Your task to perform on an android device: turn notification dots on Image 0: 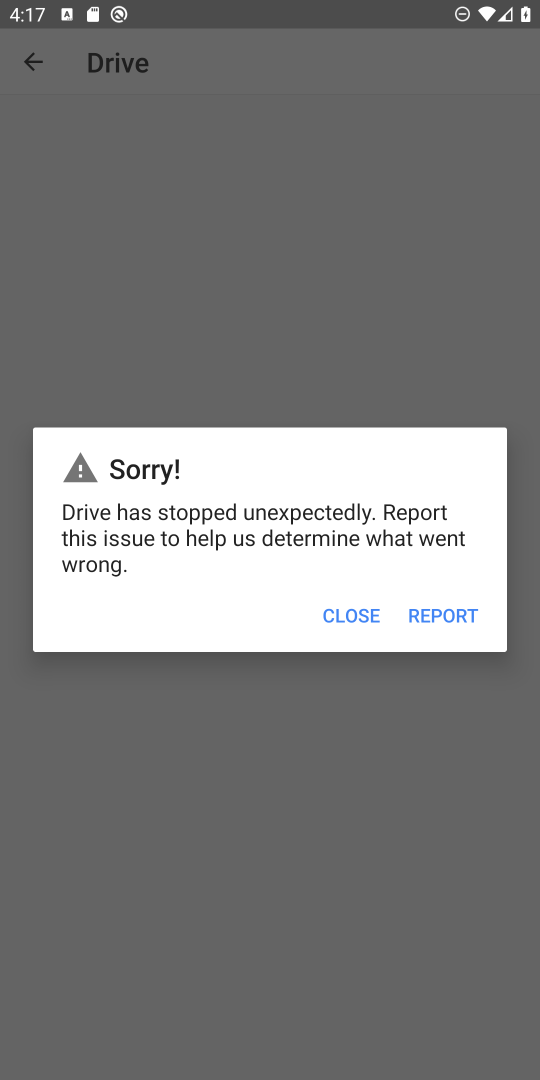
Step 0: press home button
Your task to perform on an android device: turn notification dots on Image 1: 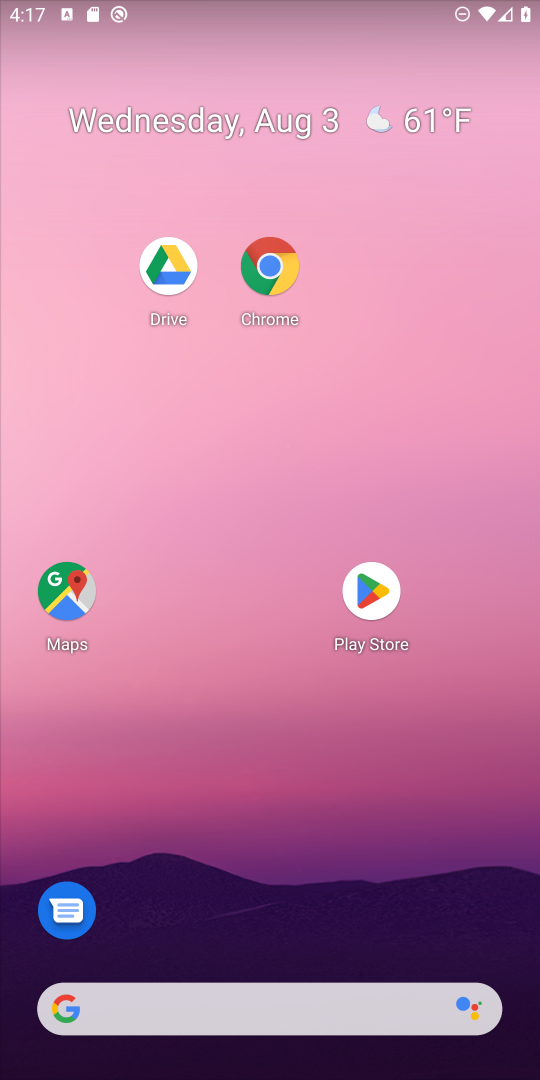
Step 1: drag from (298, 1005) to (466, 13)
Your task to perform on an android device: turn notification dots on Image 2: 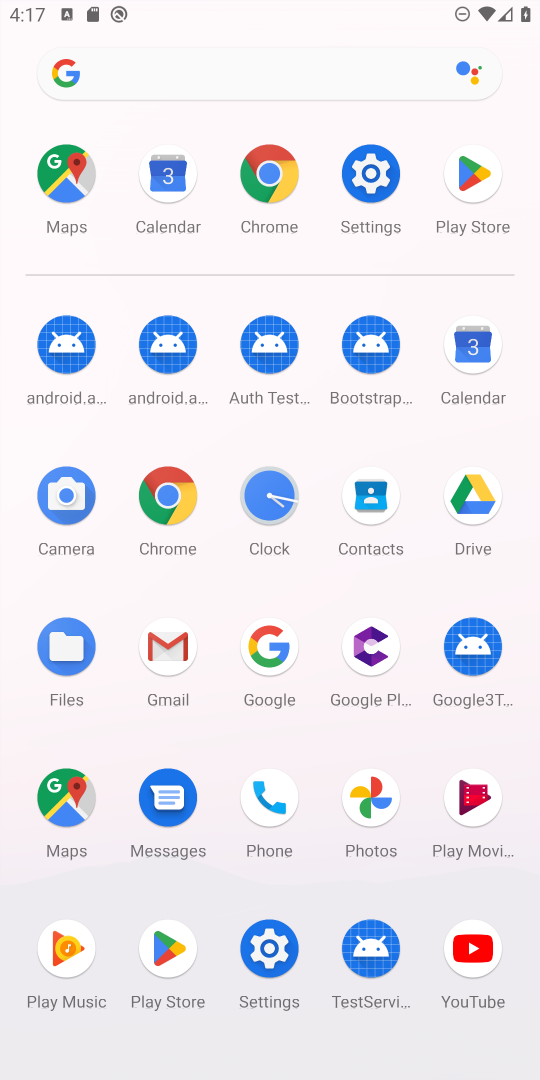
Step 2: click (372, 185)
Your task to perform on an android device: turn notification dots on Image 3: 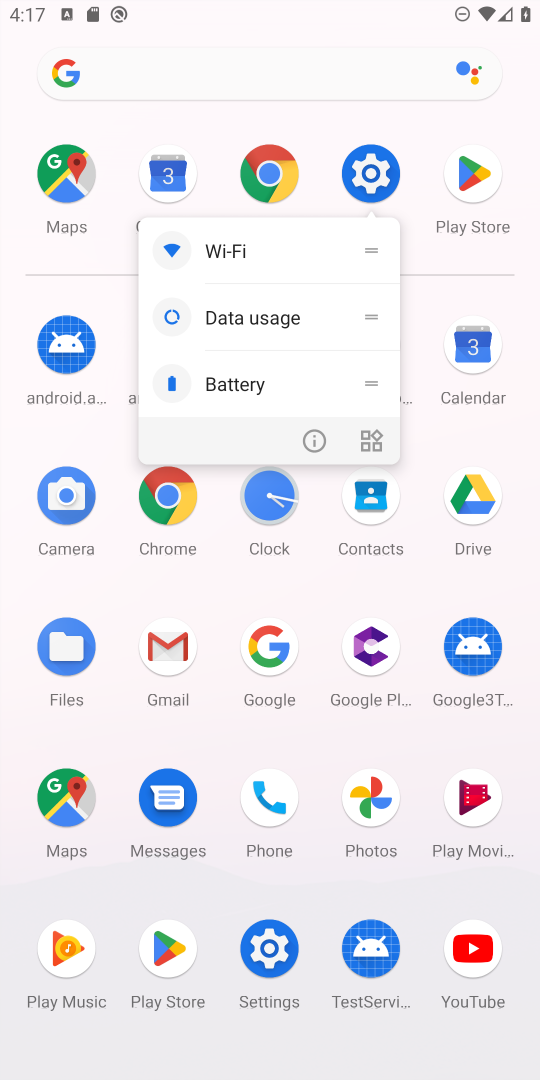
Step 3: click (380, 173)
Your task to perform on an android device: turn notification dots on Image 4: 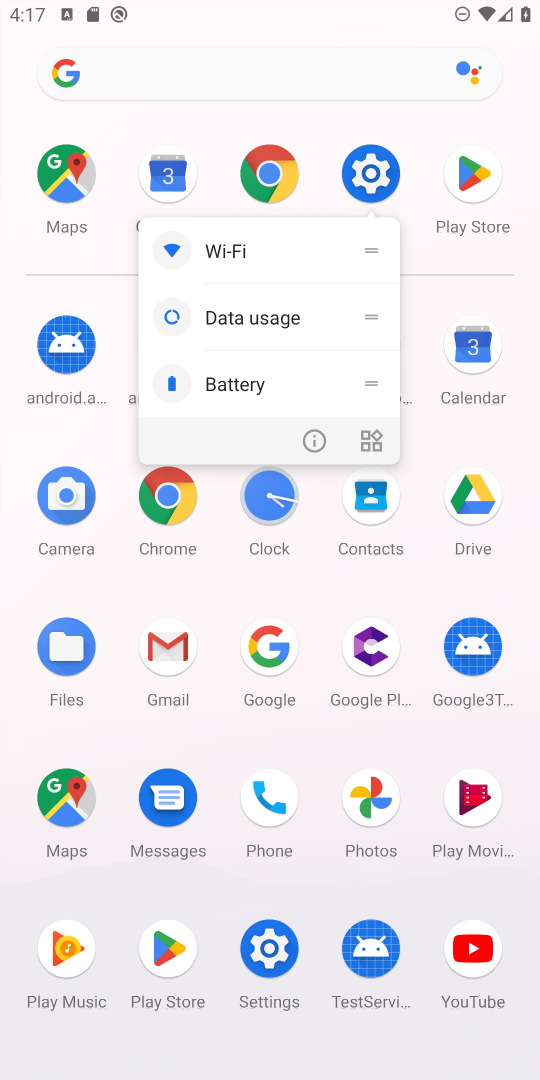
Step 4: click (380, 173)
Your task to perform on an android device: turn notification dots on Image 5: 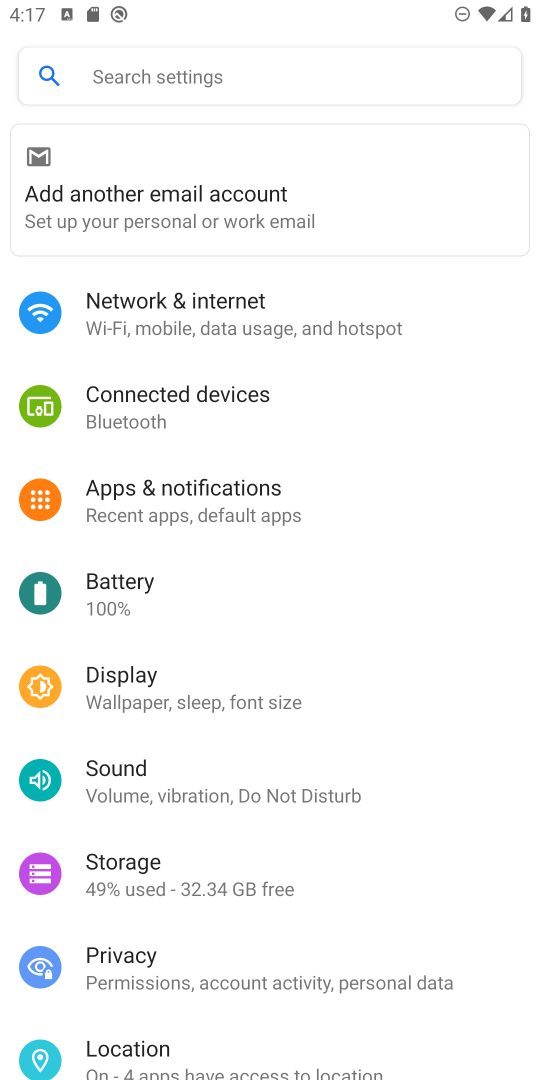
Step 5: click (251, 477)
Your task to perform on an android device: turn notification dots on Image 6: 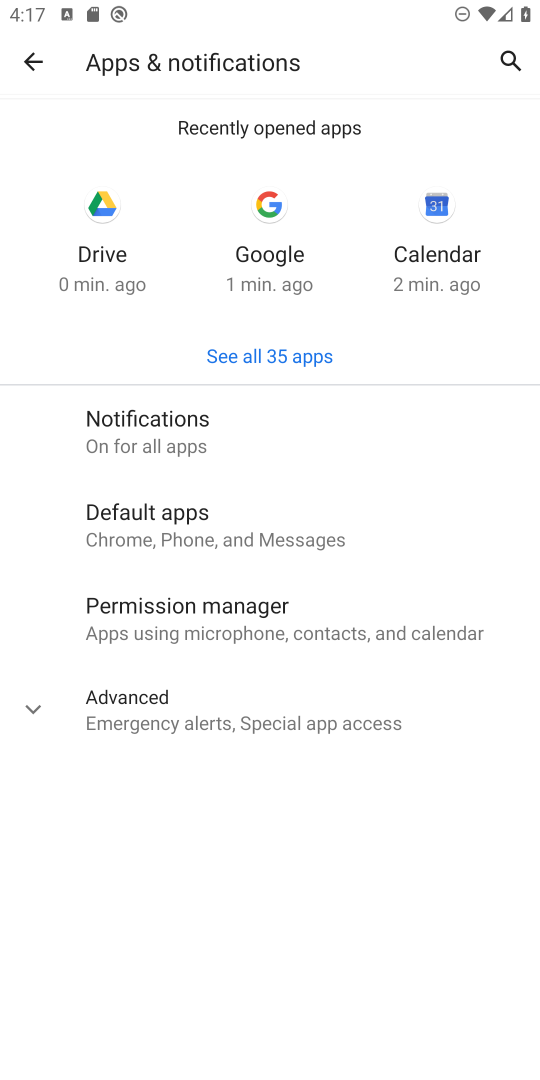
Step 6: click (179, 437)
Your task to perform on an android device: turn notification dots on Image 7: 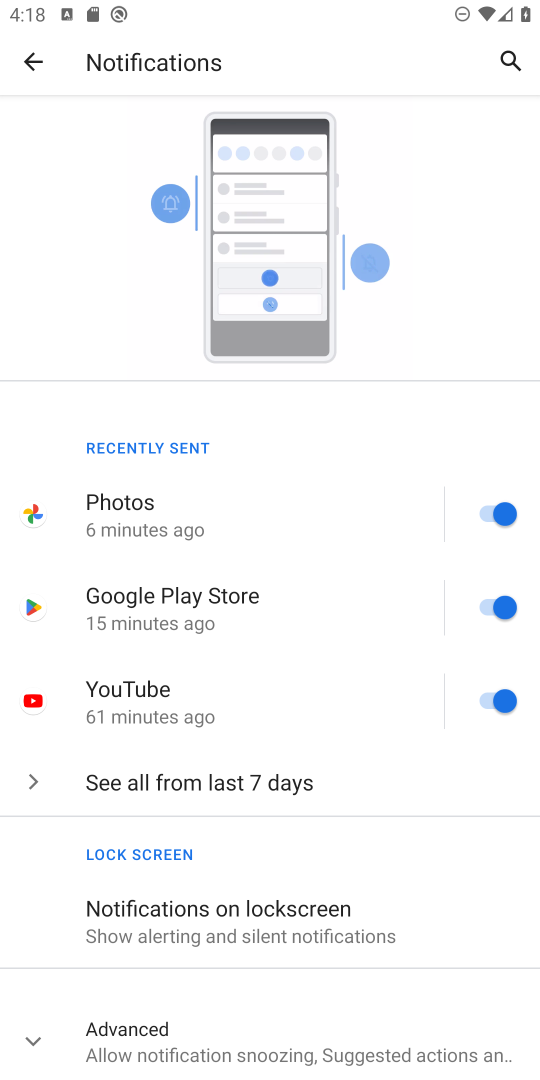
Step 7: click (247, 1043)
Your task to perform on an android device: turn notification dots on Image 8: 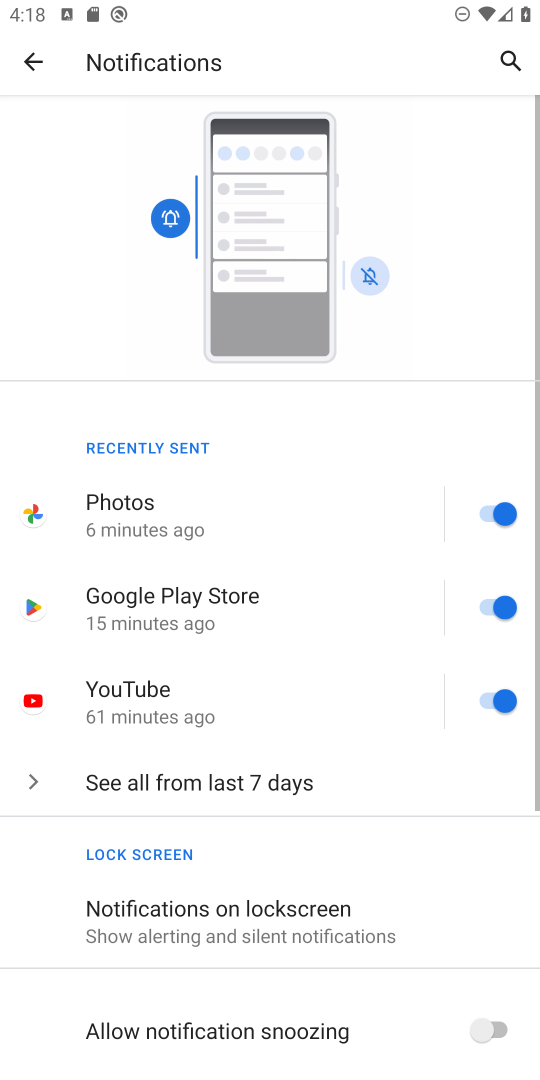
Step 8: drag from (285, 998) to (320, 437)
Your task to perform on an android device: turn notification dots on Image 9: 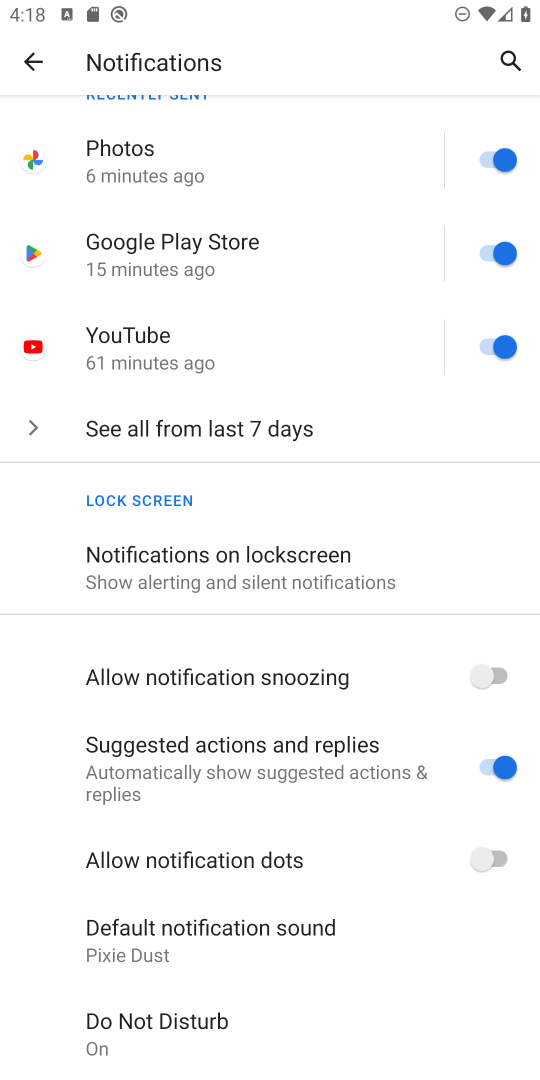
Step 9: click (486, 855)
Your task to perform on an android device: turn notification dots on Image 10: 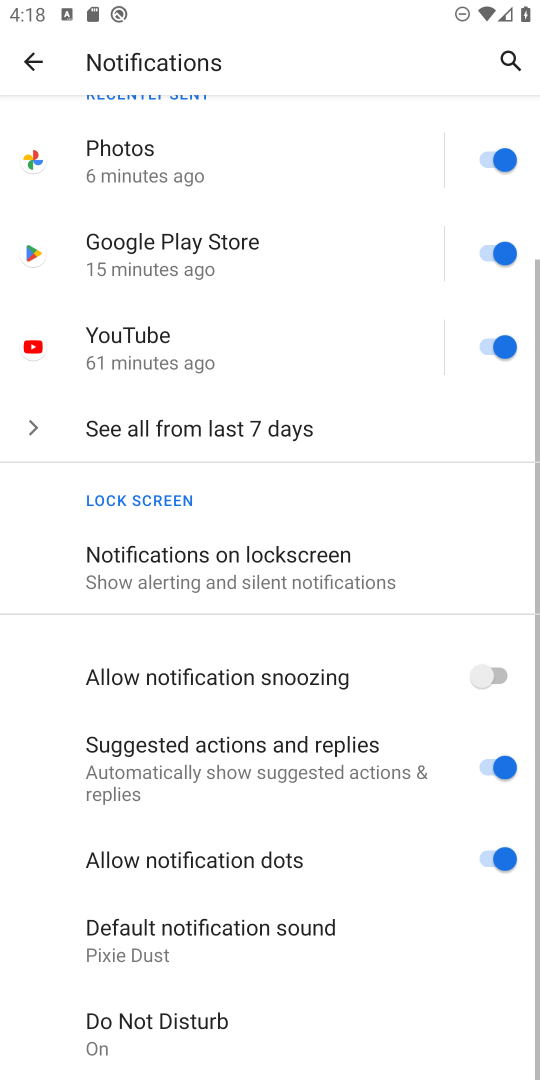
Step 10: task complete